Your task to perform on an android device: Go to CNN.com Image 0: 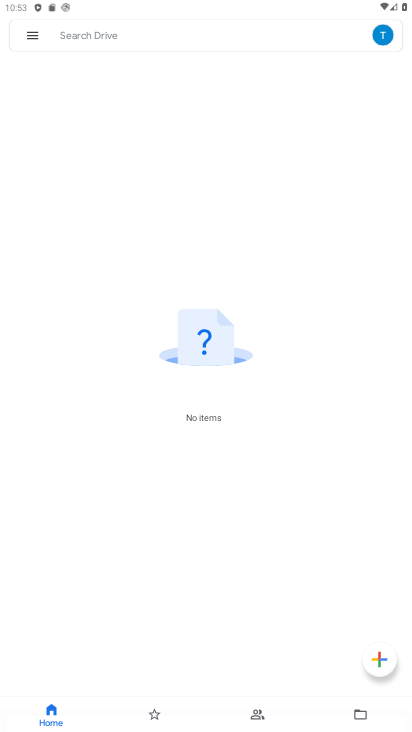
Step 0: press home button
Your task to perform on an android device: Go to CNN.com Image 1: 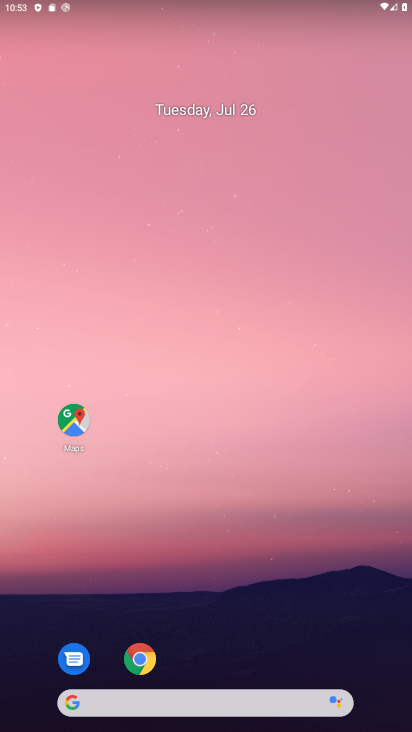
Step 1: click (131, 704)
Your task to perform on an android device: Go to CNN.com Image 2: 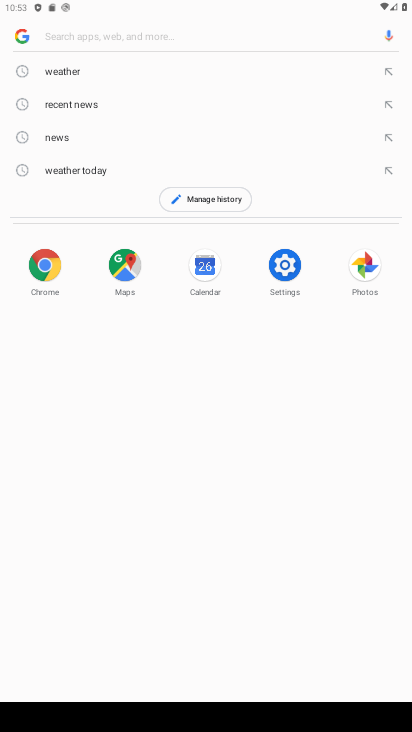
Step 2: click (260, 29)
Your task to perform on an android device: Go to CNN.com Image 3: 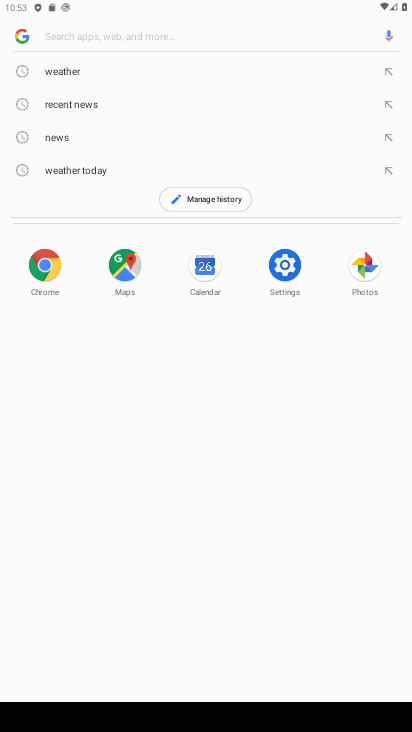
Step 3: type "CNN.com"
Your task to perform on an android device: Go to CNN.com Image 4: 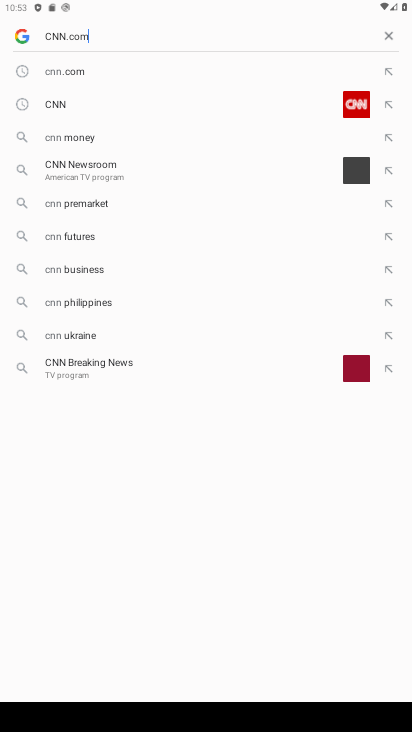
Step 4: type ""
Your task to perform on an android device: Go to CNN.com Image 5: 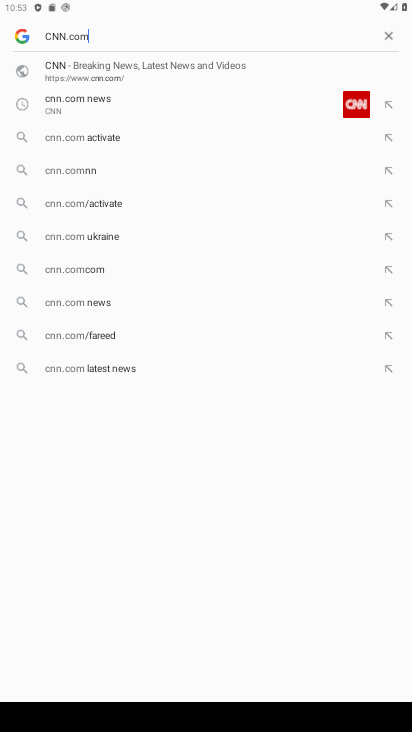
Step 5: click (183, 63)
Your task to perform on an android device: Go to CNN.com Image 6: 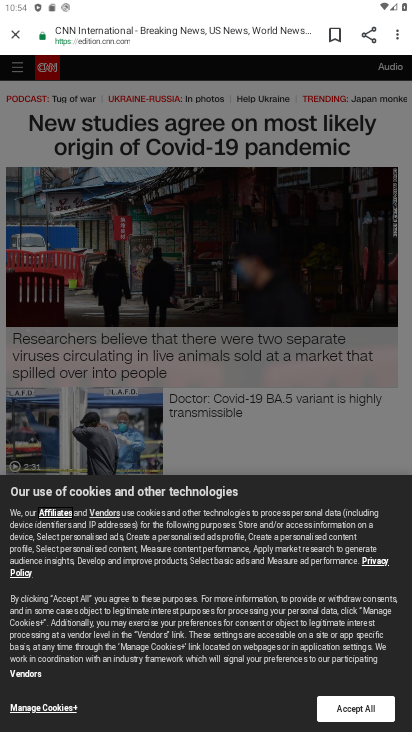
Step 6: task complete